Your task to perform on an android device: turn off notifications in google photos Image 0: 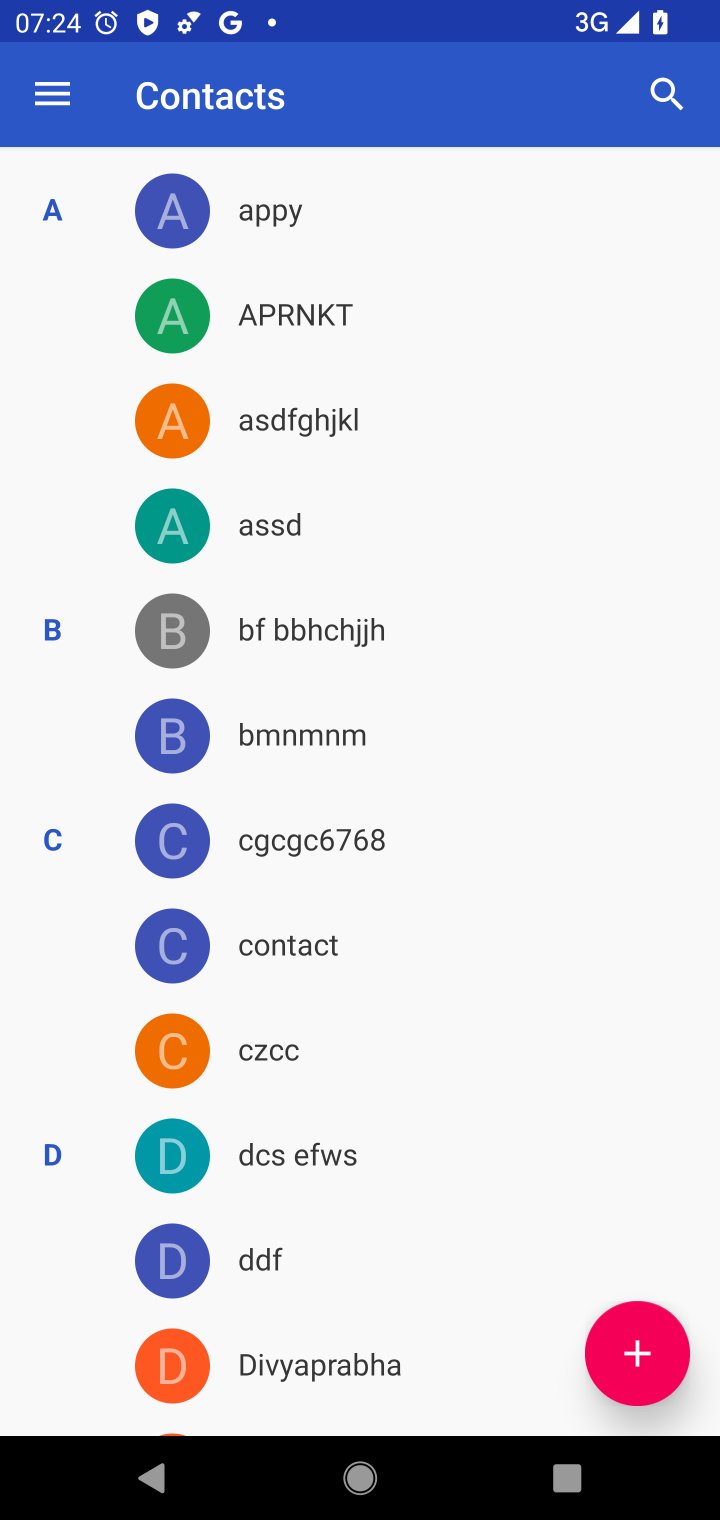
Step 0: press home button
Your task to perform on an android device: turn off notifications in google photos Image 1: 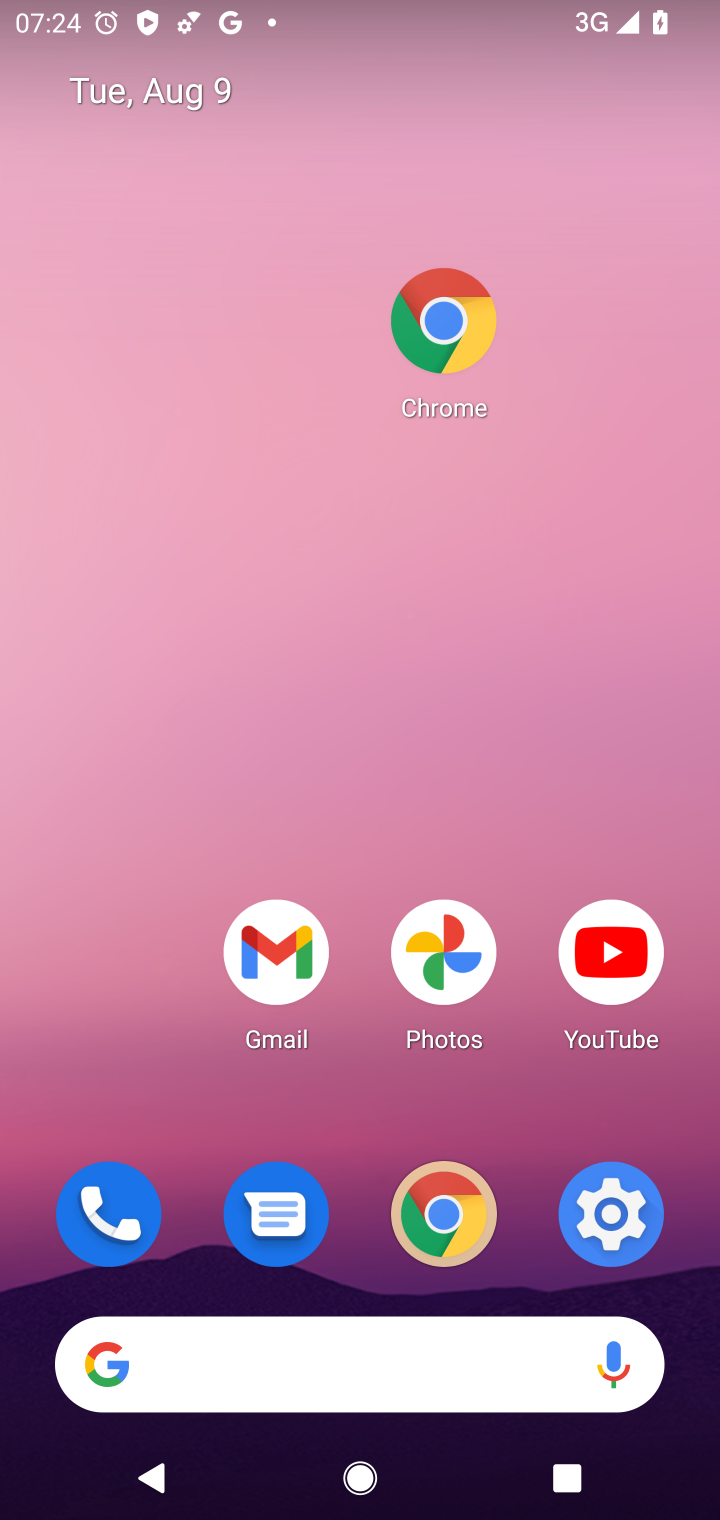
Step 1: drag from (445, 1406) to (469, 482)
Your task to perform on an android device: turn off notifications in google photos Image 2: 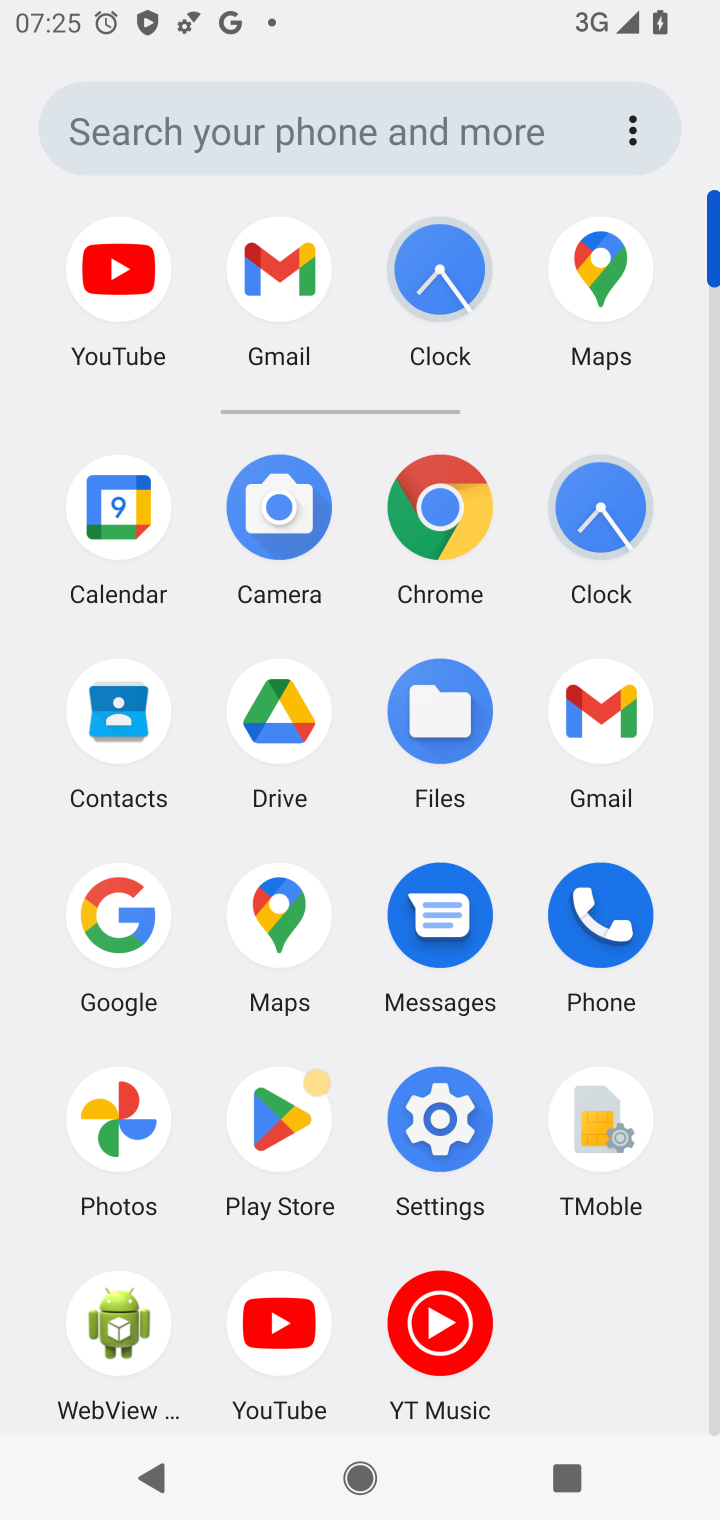
Step 2: click (143, 1132)
Your task to perform on an android device: turn off notifications in google photos Image 3: 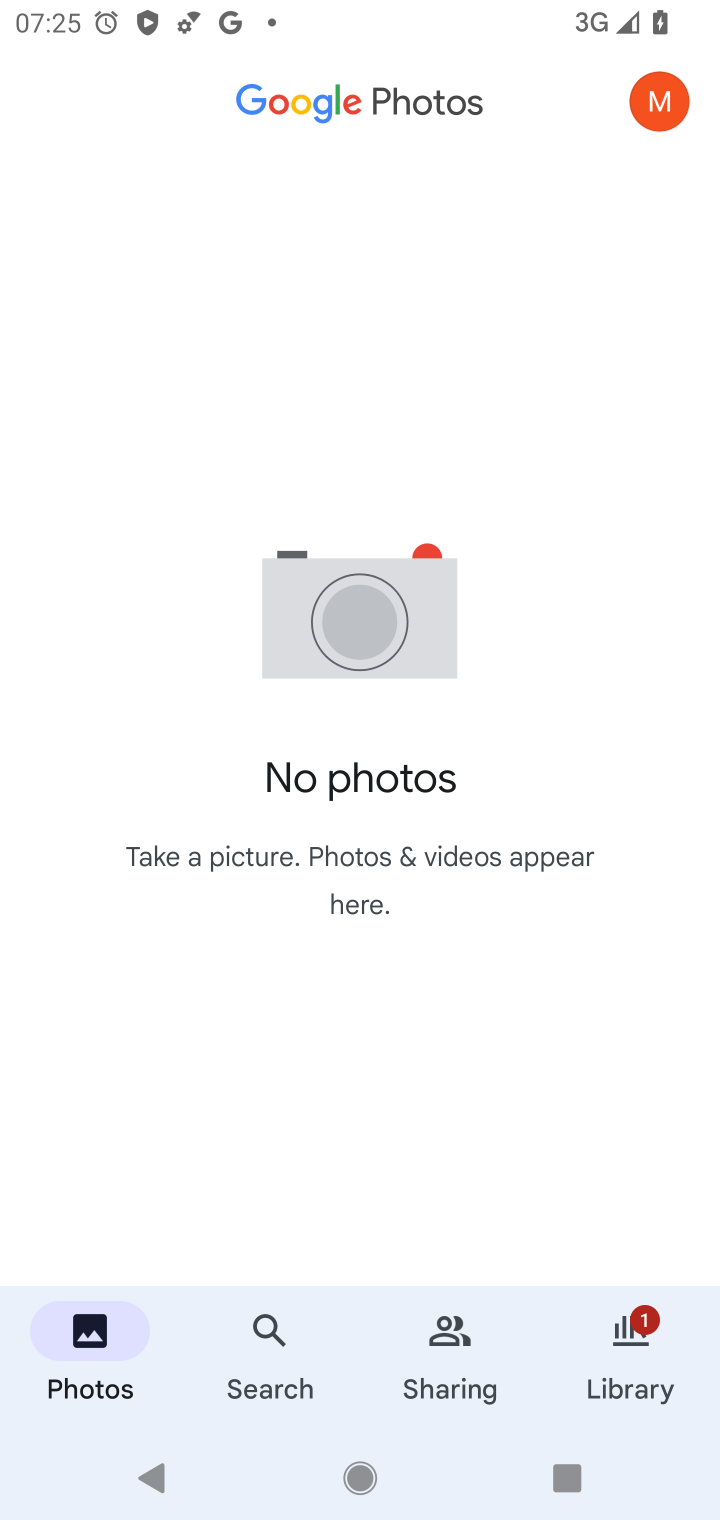
Step 3: click (641, 117)
Your task to perform on an android device: turn off notifications in google photos Image 4: 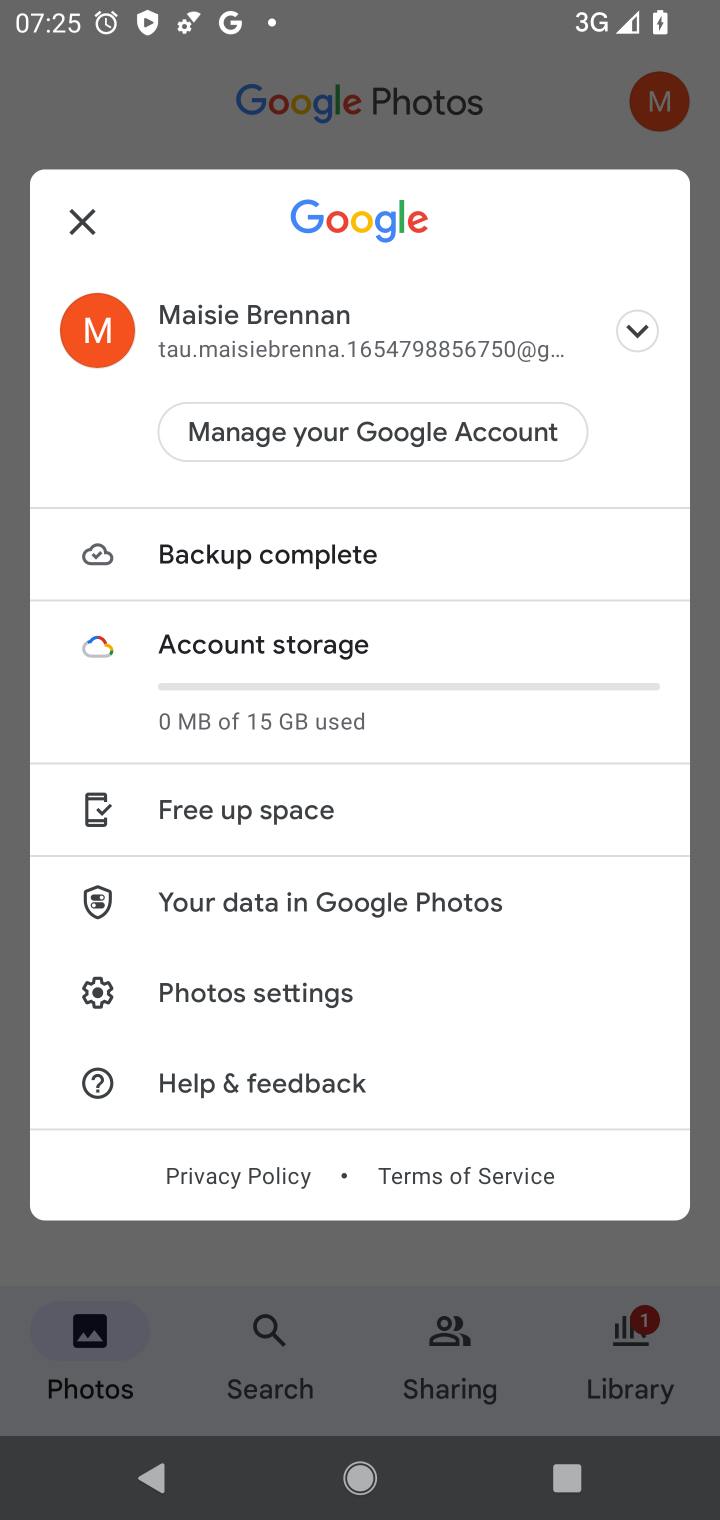
Step 4: click (240, 1004)
Your task to perform on an android device: turn off notifications in google photos Image 5: 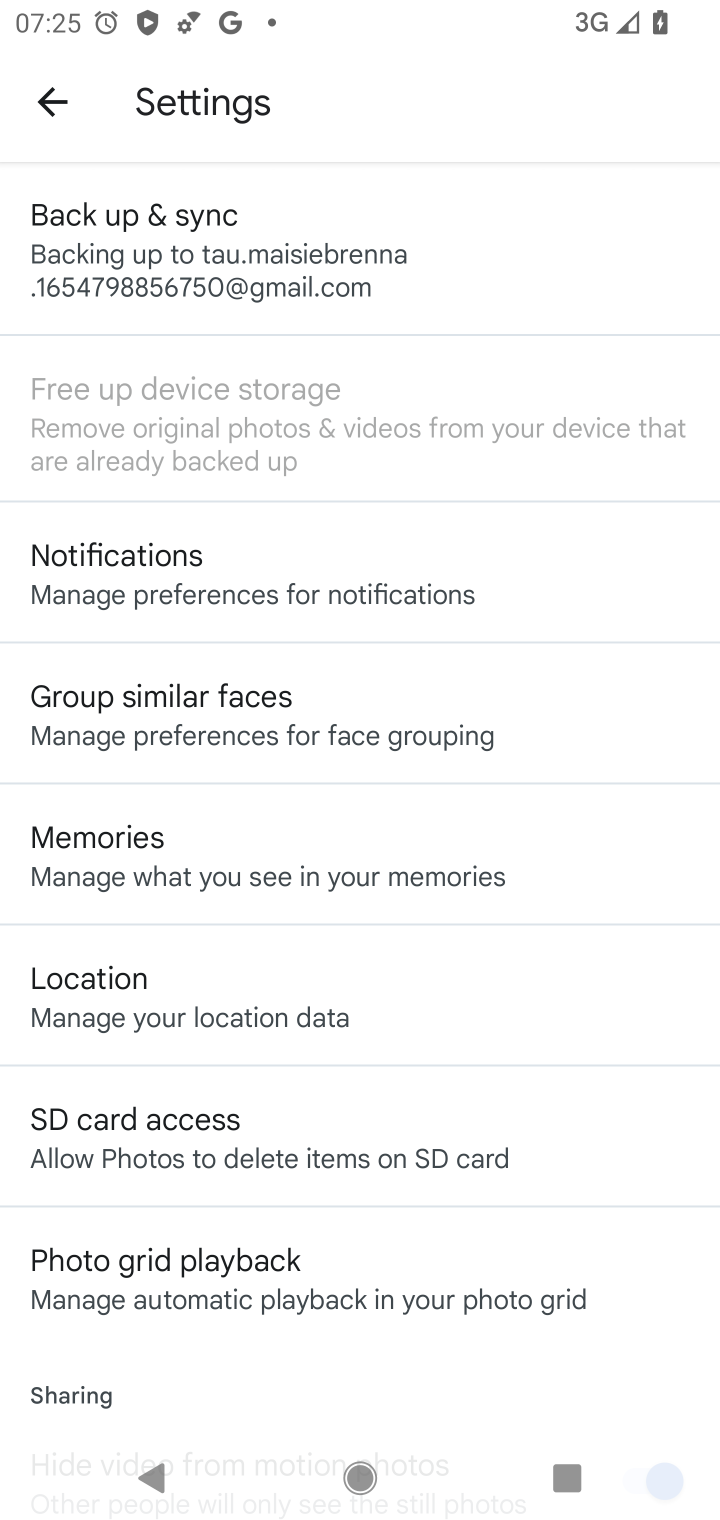
Step 5: click (293, 574)
Your task to perform on an android device: turn off notifications in google photos Image 6: 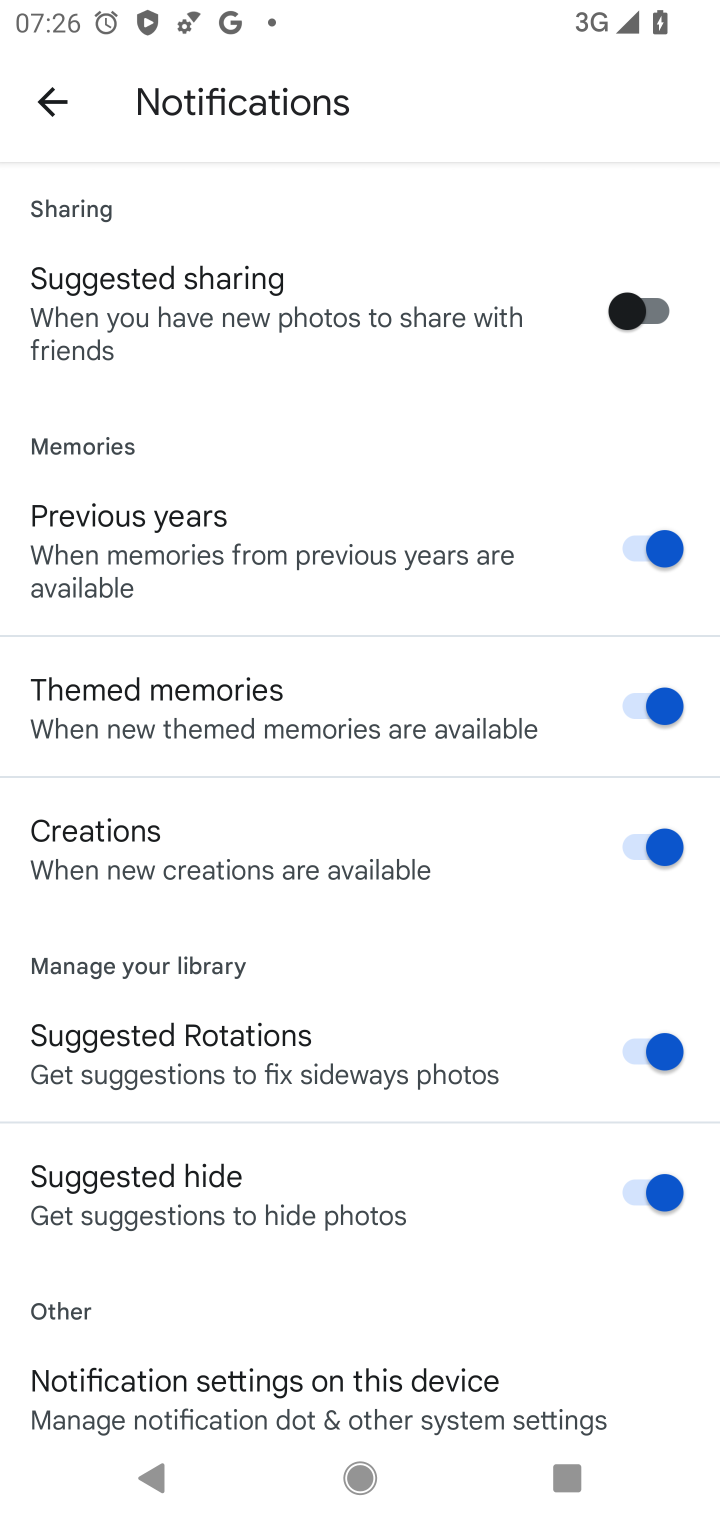
Step 6: click (361, 1372)
Your task to perform on an android device: turn off notifications in google photos Image 7: 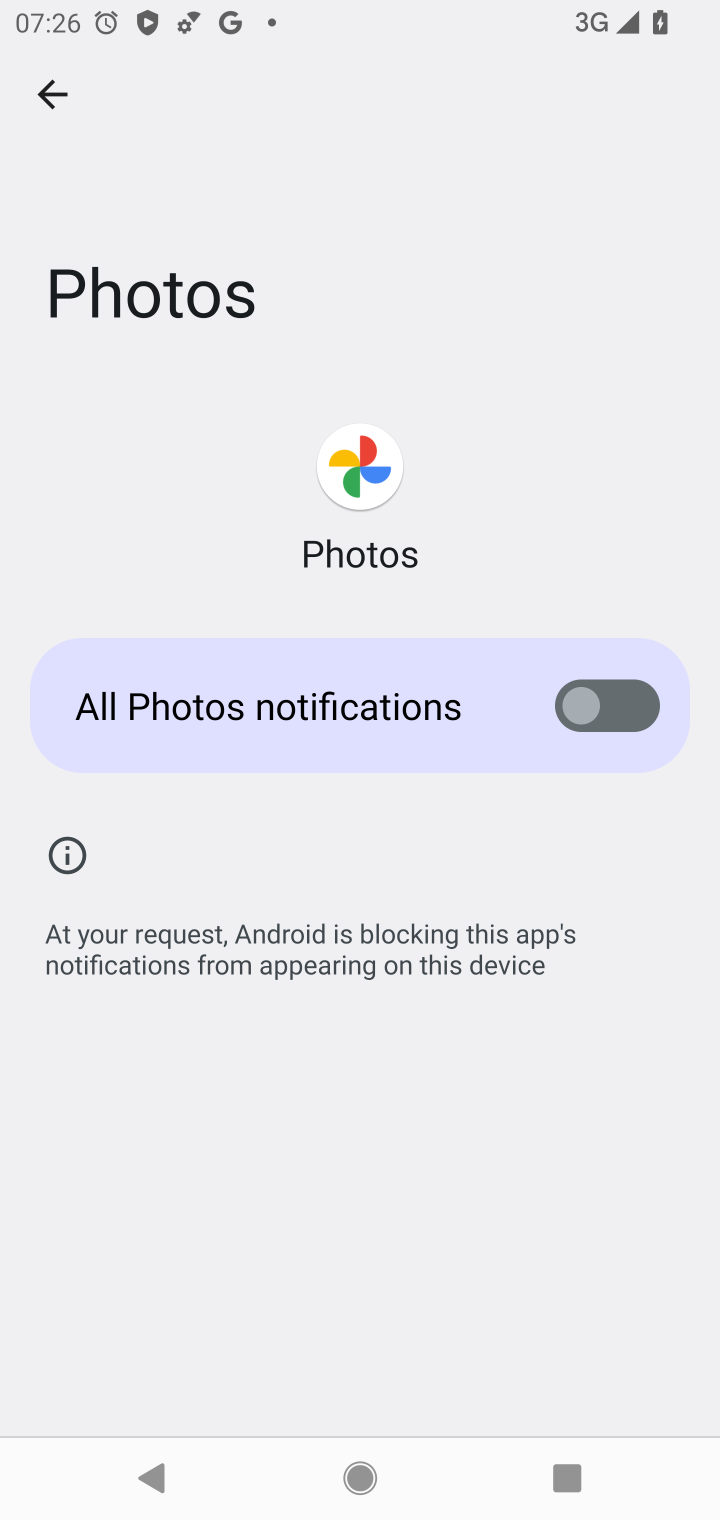
Step 7: task complete